Your task to perform on an android device: all mails in gmail Image 0: 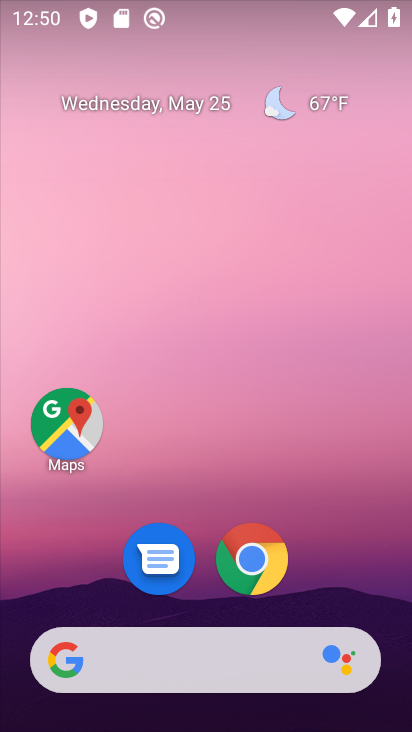
Step 0: drag from (97, 564) to (164, 138)
Your task to perform on an android device: all mails in gmail Image 1: 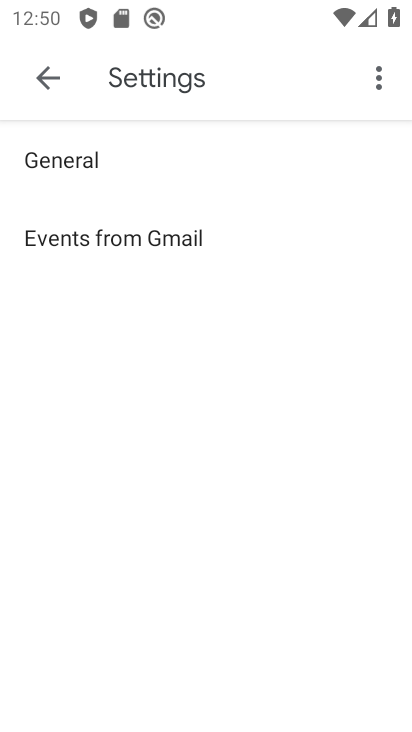
Step 1: press home button
Your task to perform on an android device: all mails in gmail Image 2: 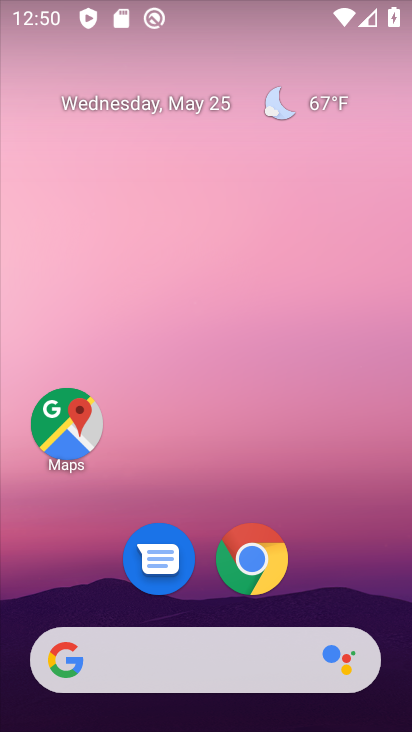
Step 2: drag from (73, 616) to (180, 144)
Your task to perform on an android device: all mails in gmail Image 3: 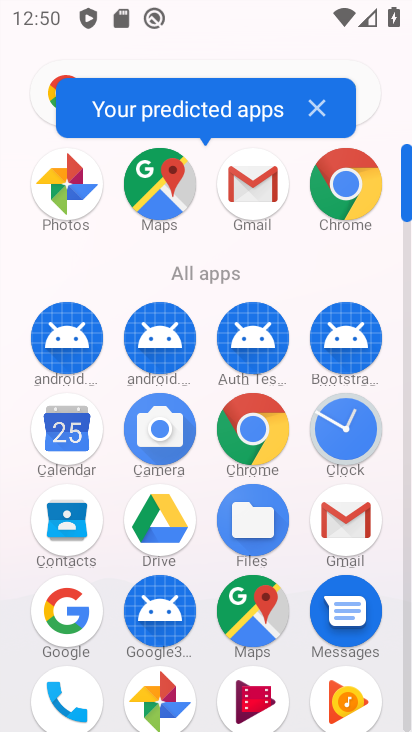
Step 3: click (334, 509)
Your task to perform on an android device: all mails in gmail Image 4: 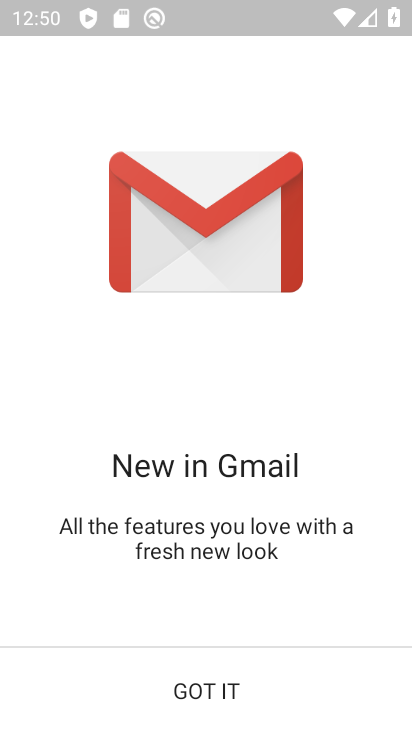
Step 4: click (201, 684)
Your task to perform on an android device: all mails in gmail Image 5: 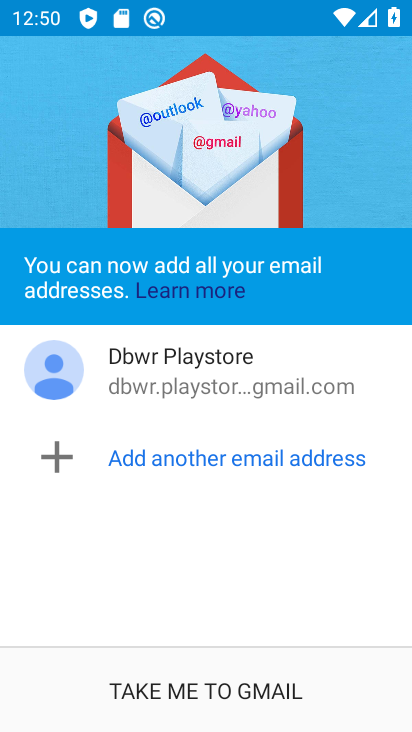
Step 5: click (250, 705)
Your task to perform on an android device: all mails in gmail Image 6: 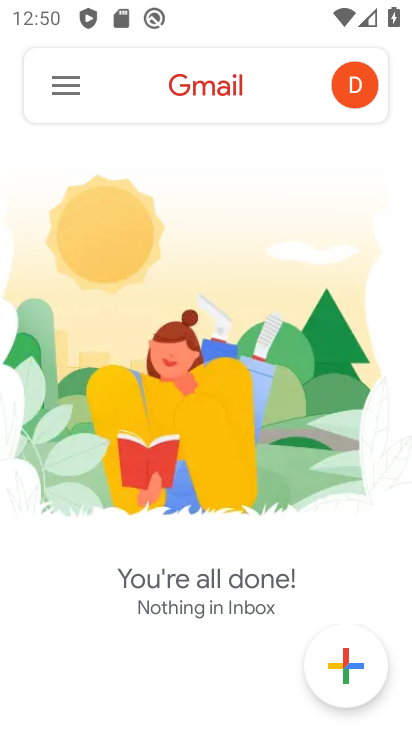
Step 6: click (59, 118)
Your task to perform on an android device: all mails in gmail Image 7: 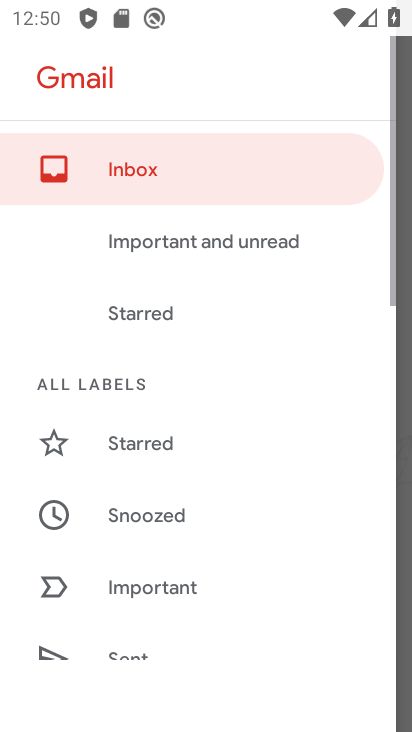
Step 7: drag from (109, 641) to (193, 198)
Your task to perform on an android device: all mails in gmail Image 8: 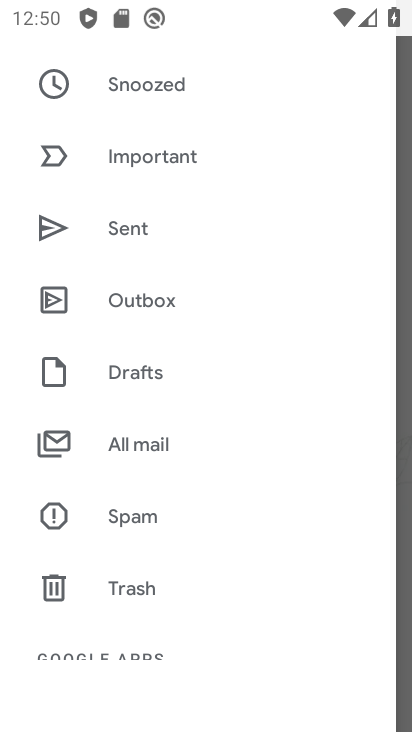
Step 8: click (169, 463)
Your task to perform on an android device: all mails in gmail Image 9: 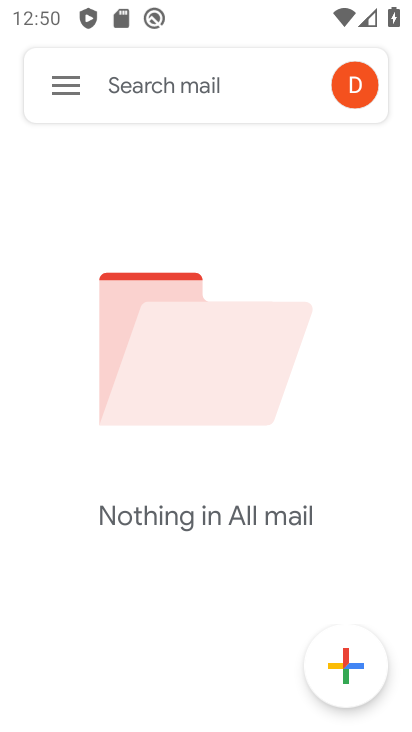
Step 9: task complete